Your task to perform on an android device: Open display settings Image 0: 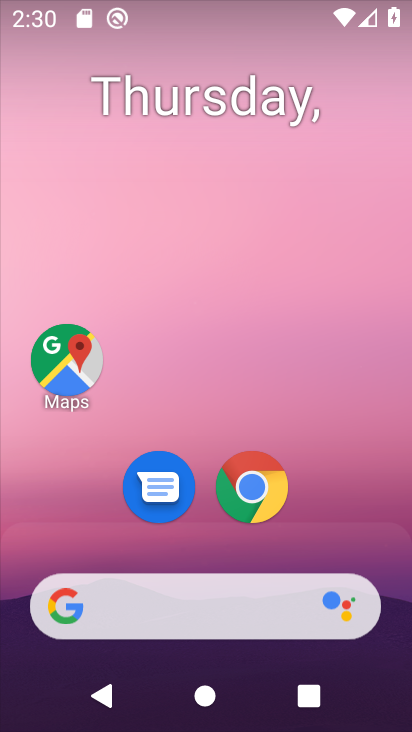
Step 0: drag from (378, 565) to (224, 27)
Your task to perform on an android device: Open display settings Image 1: 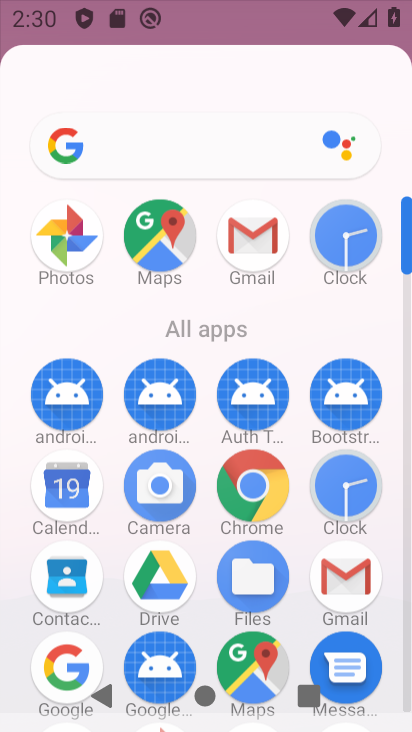
Step 1: drag from (338, 425) to (252, 40)
Your task to perform on an android device: Open display settings Image 2: 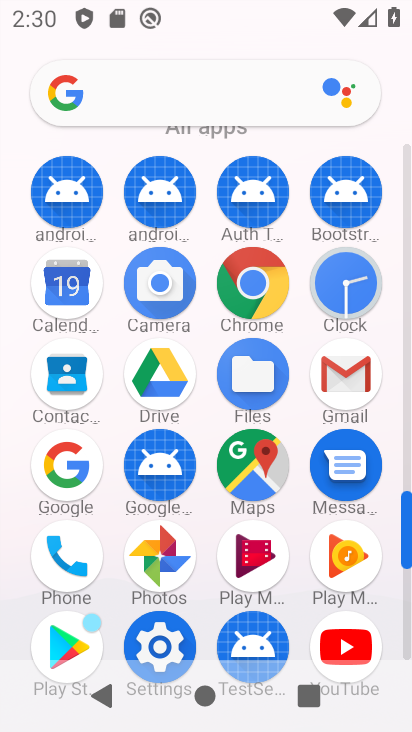
Step 2: click (174, 656)
Your task to perform on an android device: Open display settings Image 3: 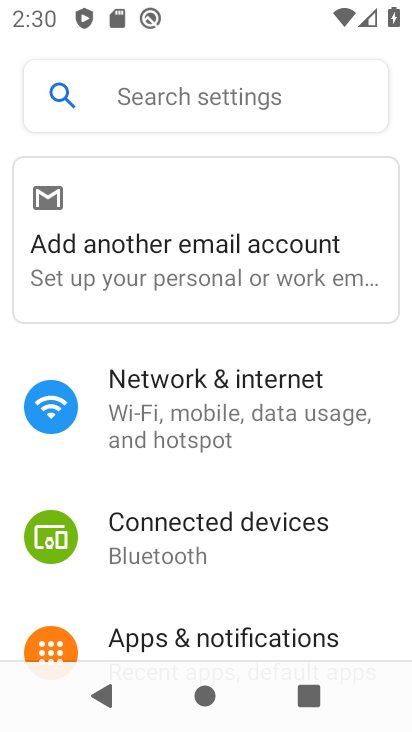
Step 3: drag from (180, 578) to (100, 117)
Your task to perform on an android device: Open display settings Image 4: 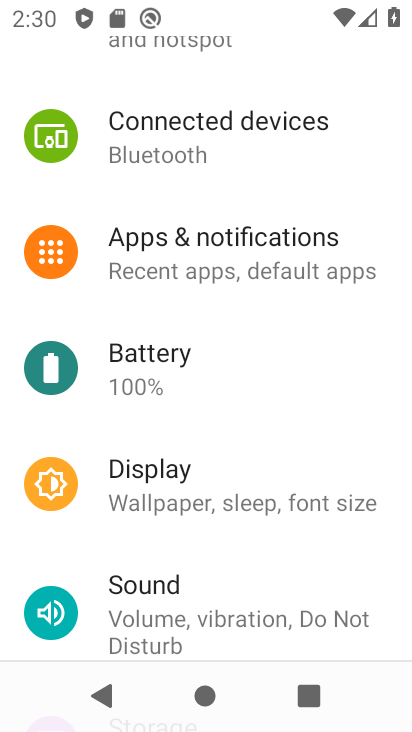
Step 4: click (202, 495)
Your task to perform on an android device: Open display settings Image 5: 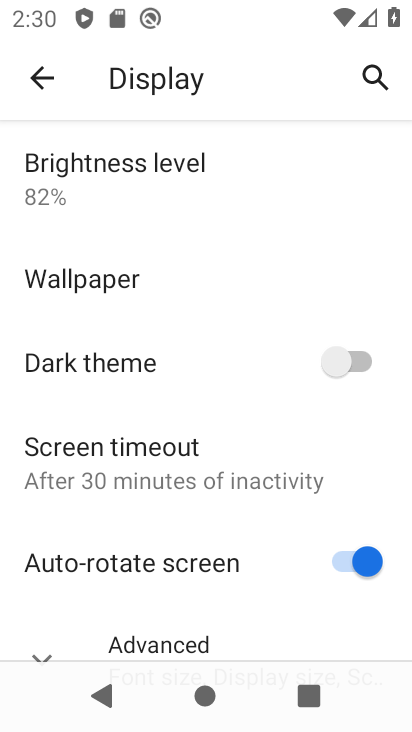
Step 5: task complete